Your task to perform on an android device: turn off data saver in the chrome app Image 0: 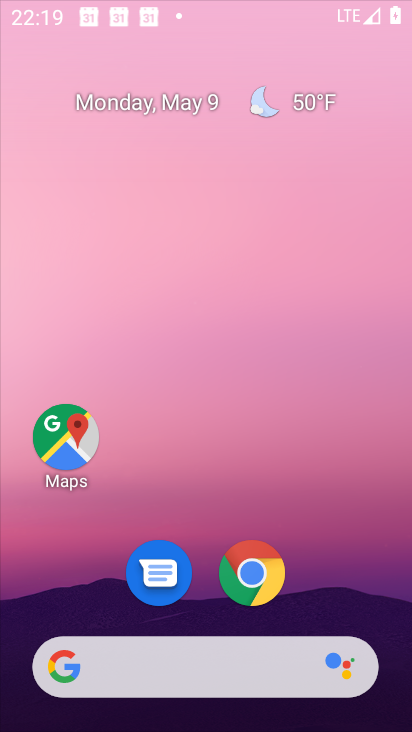
Step 0: drag from (256, 50) to (292, 149)
Your task to perform on an android device: turn off data saver in the chrome app Image 1: 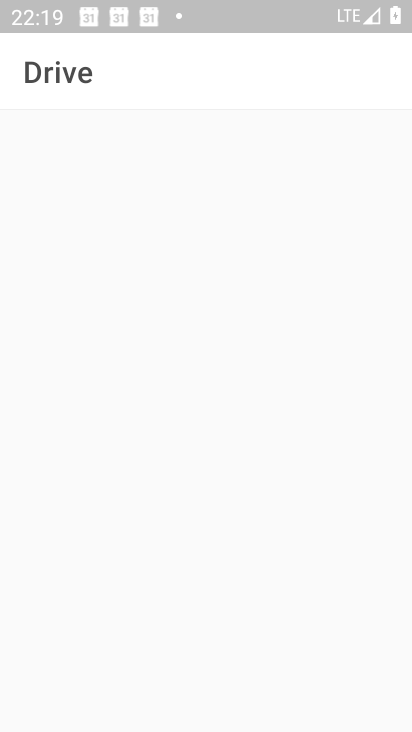
Step 1: press home button
Your task to perform on an android device: turn off data saver in the chrome app Image 2: 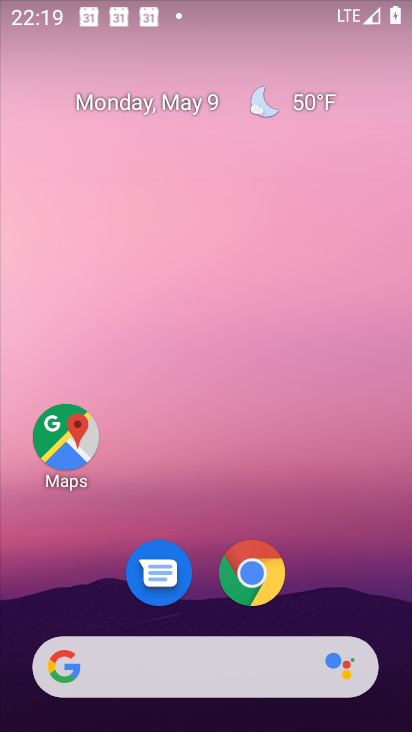
Step 2: click (255, 572)
Your task to perform on an android device: turn off data saver in the chrome app Image 3: 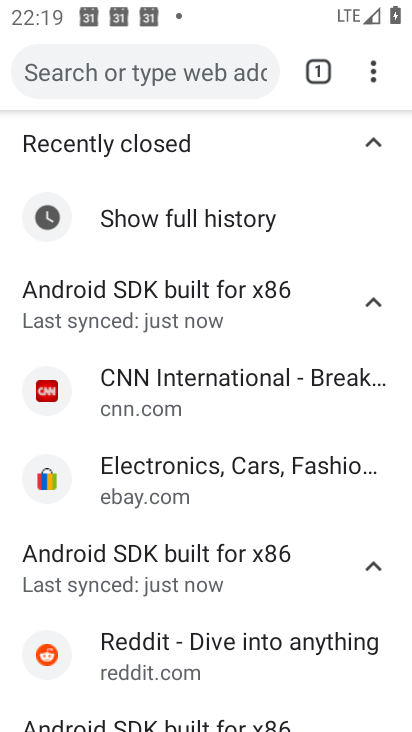
Step 3: drag from (366, 66) to (223, 586)
Your task to perform on an android device: turn off data saver in the chrome app Image 4: 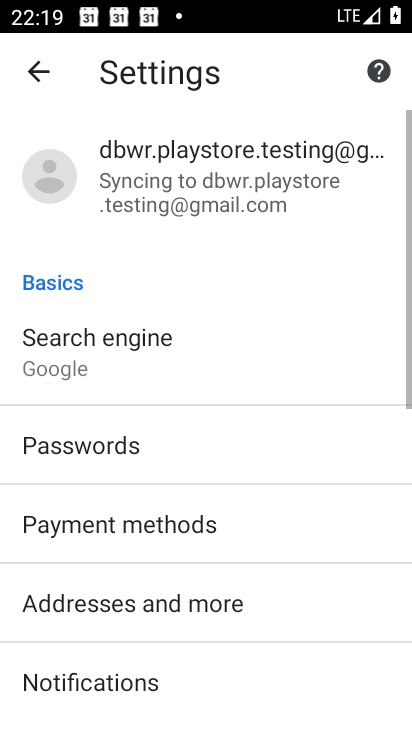
Step 4: drag from (221, 574) to (236, 81)
Your task to perform on an android device: turn off data saver in the chrome app Image 5: 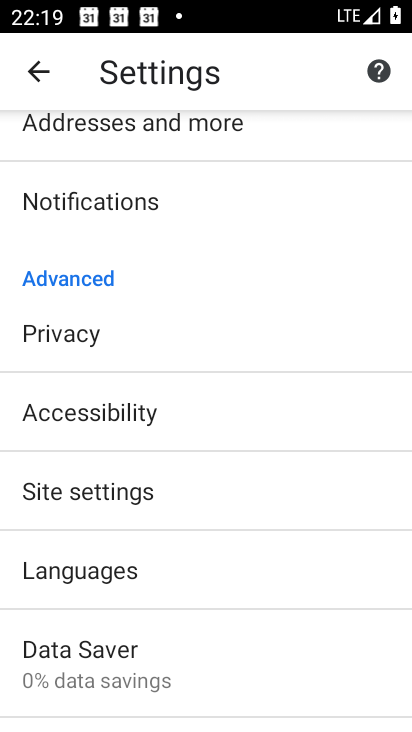
Step 5: click (152, 623)
Your task to perform on an android device: turn off data saver in the chrome app Image 6: 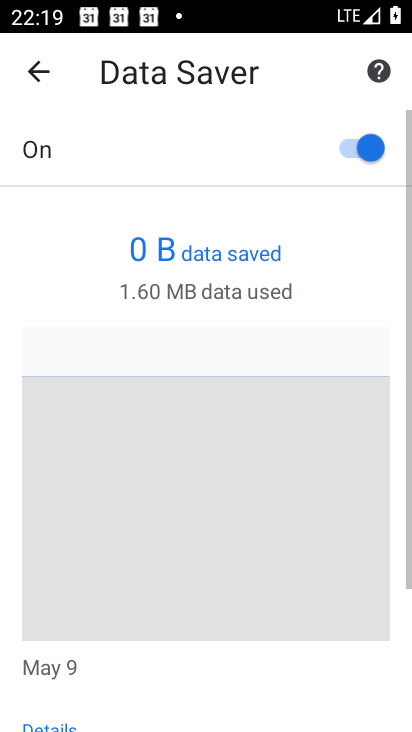
Step 6: click (373, 146)
Your task to perform on an android device: turn off data saver in the chrome app Image 7: 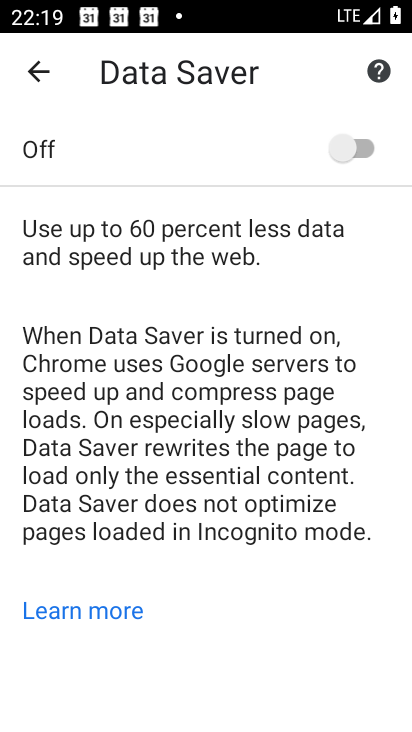
Step 7: task complete